Your task to perform on an android device: turn on data saver in the chrome app Image 0: 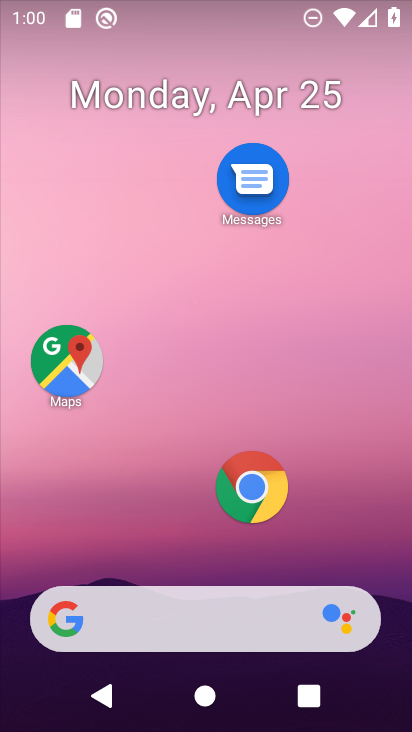
Step 0: drag from (314, 632) to (303, 49)
Your task to perform on an android device: turn on data saver in the chrome app Image 1: 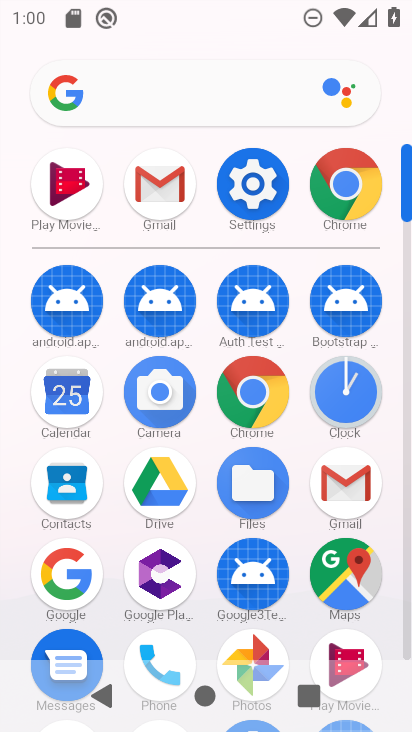
Step 1: click (272, 382)
Your task to perform on an android device: turn on data saver in the chrome app Image 2: 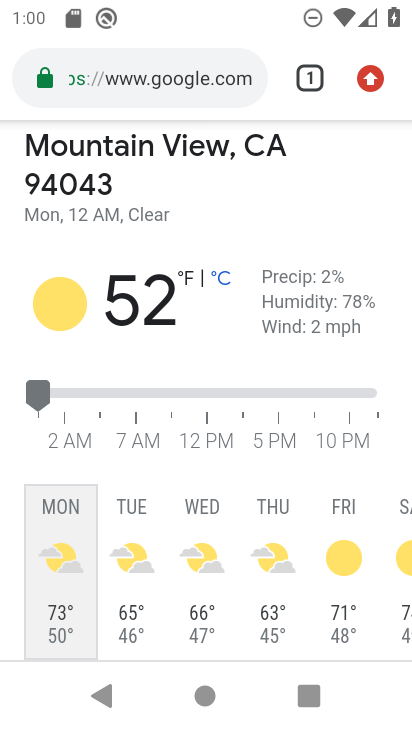
Step 2: drag from (380, 68) to (137, 543)
Your task to perform on an android device: turn on data saver in the chrome app Image 3: 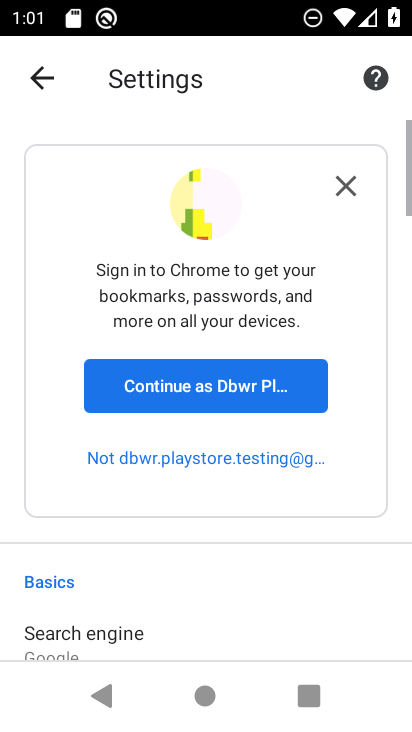
Step 3: drag from (169, 617) to (230, 112)
Your task to perform on an android device: turn on data saver in the chrome app Image 4: 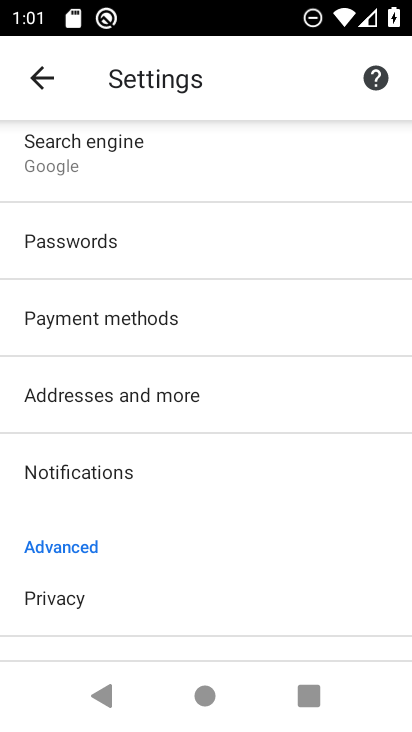
Step 4: drag from (121, 618) to (83, 95)
Your task to perform on an android device: turn on data saver in the chrome app Image 5: 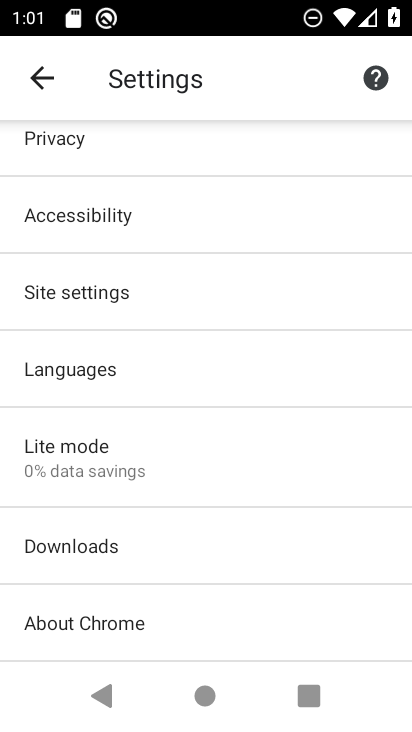
Step 5: click (124, 451)
Your task to perform on an android device: turn on data saver in the chrome app Image 6: 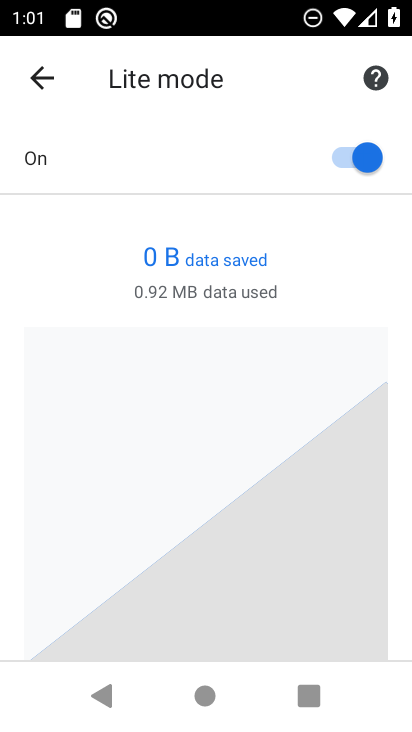
Step 6: task complete